Your task to perform on an android device: turn on the 24-hour format for clock Image 0: 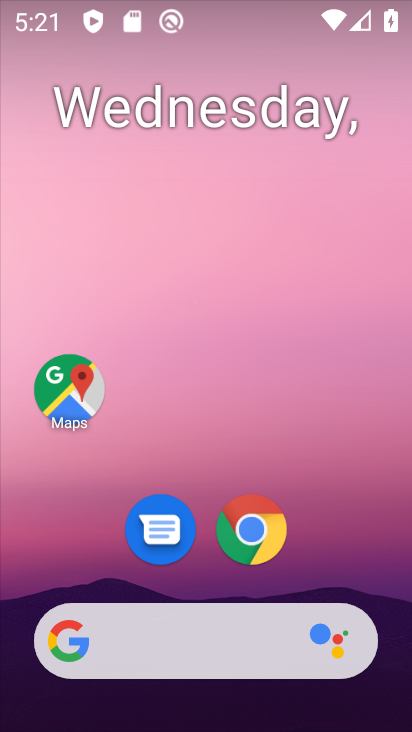
Step 0: drag from (356, 480) to (227, 2)
Your task to perform on an android device: turn on the 24-hour format for clock Image 1: 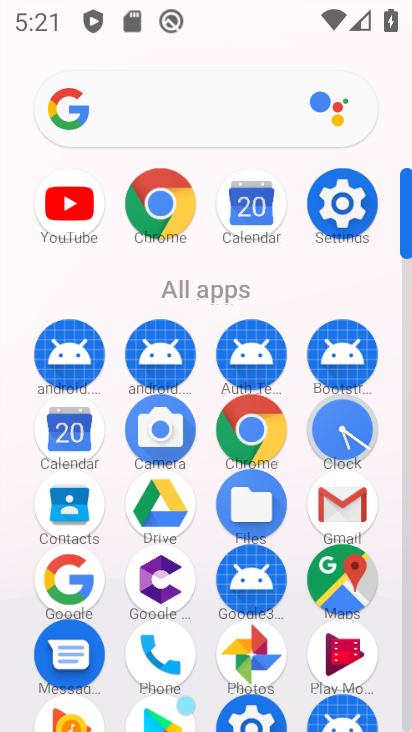
Step 1: drag from (17, 535) to (9, 246)
Your task to perform on an android device: turn on the 24-hour format for clock Image 2: 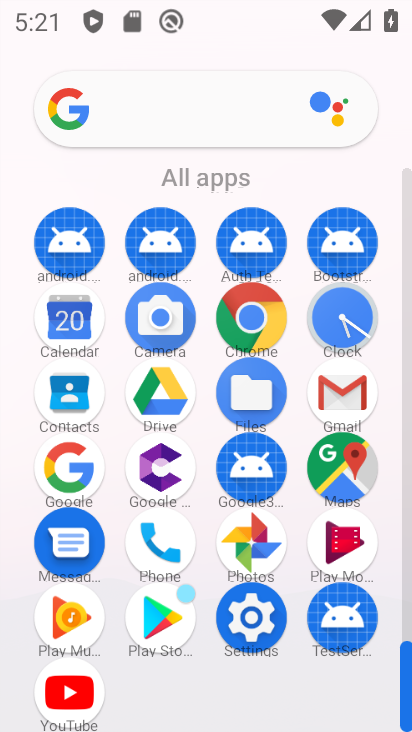
Step 2: click (330, 318)
Your task to perform on an android device: turn on the 24-hour format for clock Image 3: 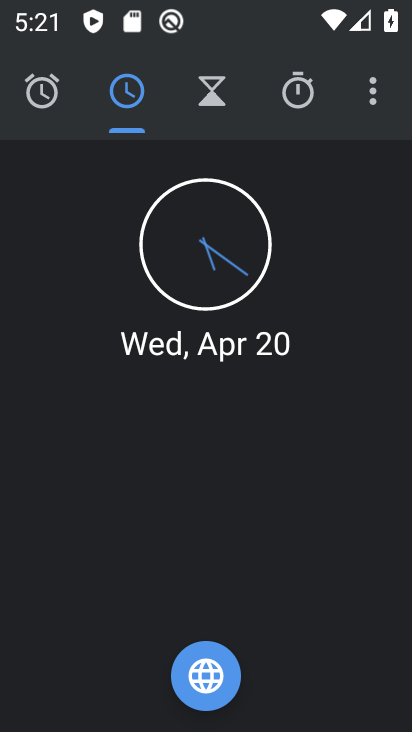
Step 3: click (69, 109)
Your task to perform on an android device: turn on the 24-hour format for clock Image 4: 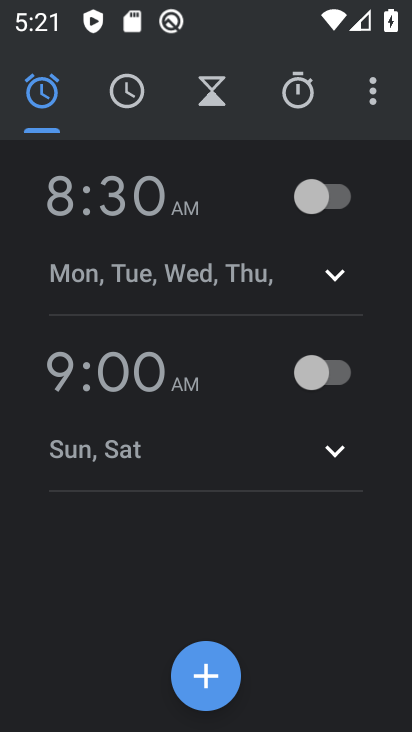
Step 4: click (372, 90)
Your task to perform on an android device: turn on the 24-hour format for clock Image 5: 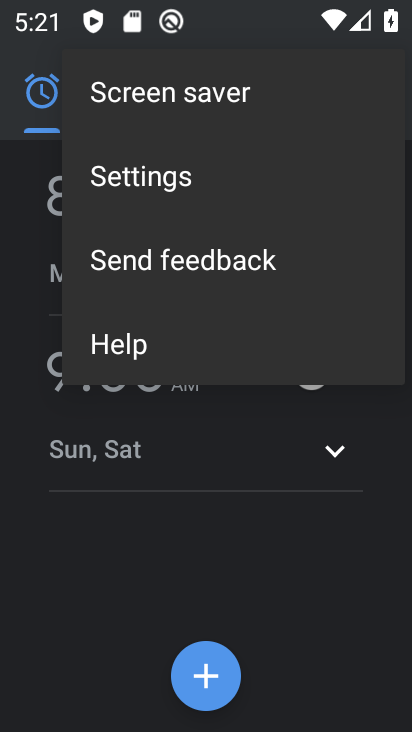
Step 5: click (194, 162)
Your task to perform on an android device: turn on the 24-hour format for clock Image 6: 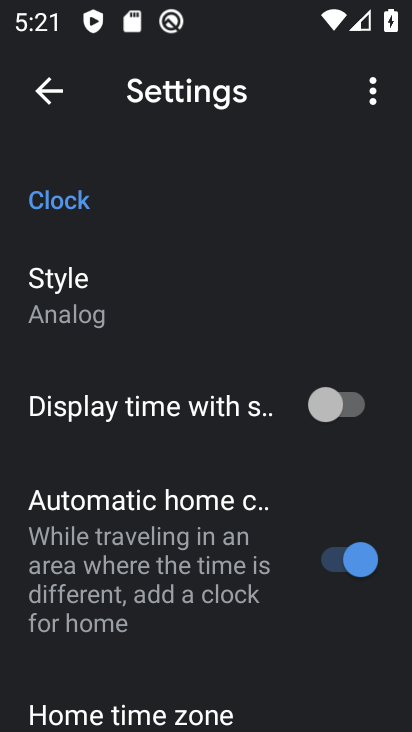
Step 6: drag from (156, 513) to (178, 354)
Your task to perform on an android device: turn on the 24-hour format for clock Image 7: 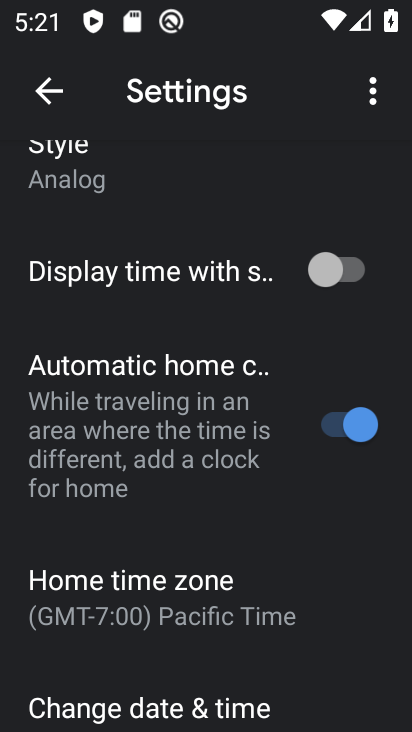
Step 7: click (187, 700)
Your task to perform on an android device: turn on the 24-hour format for clock Image 8: 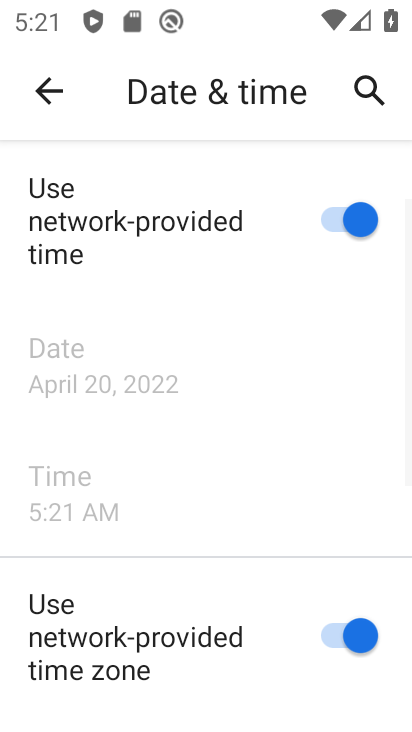
Step 8: drag from (189, 624) to (193, 131)
Your task to perform on an android device: turn on the 24-hour format for clock Image 9: 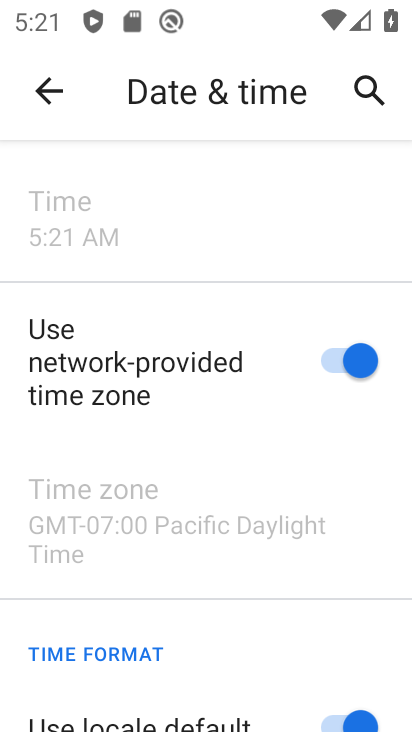
Step 9: drag from (190, 617) to (206, 124)
Your task to perform on an android device: turn on the 24-hour format for clock Image 10: 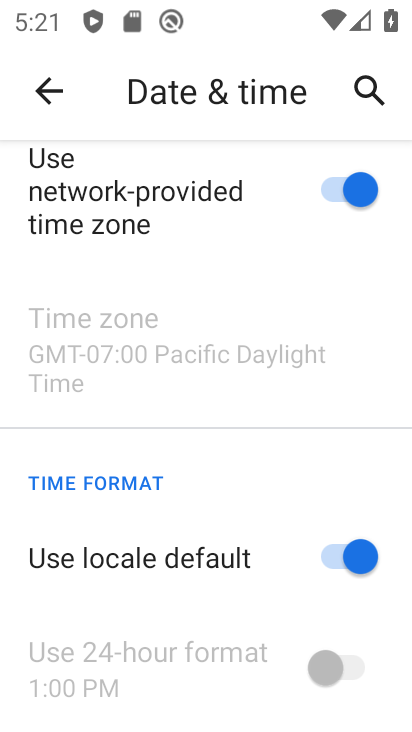
Step 10: click (336, 678)
Your task to perform on an android device: turn on the 24-hour format for clock Image 11: 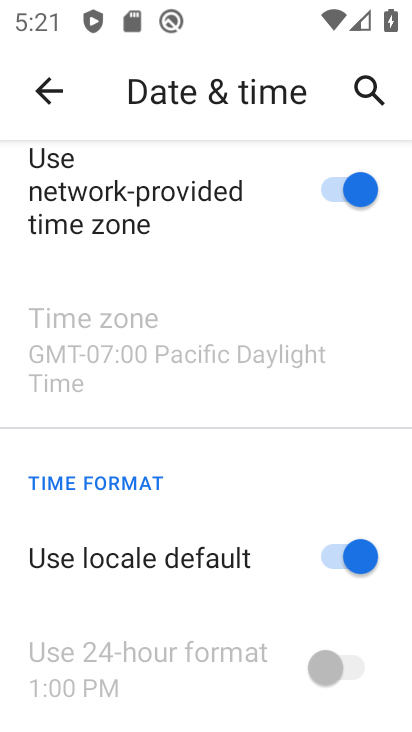
Step 11: click (351, 529)
Your task to perform on an android device: turn on the 24-hour format for clock Image 12: 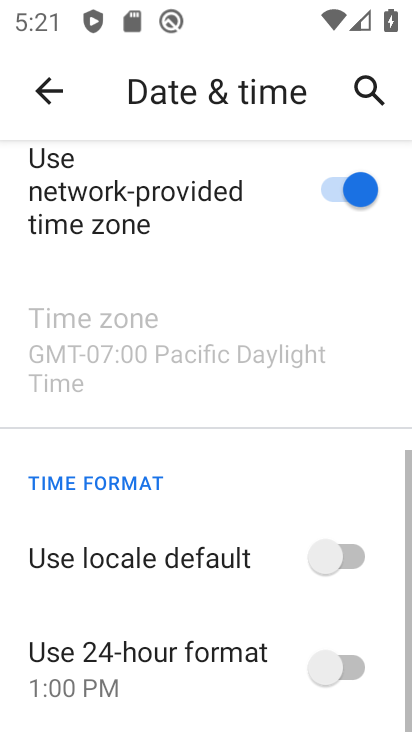
Step 12: click (347, 629)
Your task to perform on an android device: turn on the 24-hour format for clock Image 13: 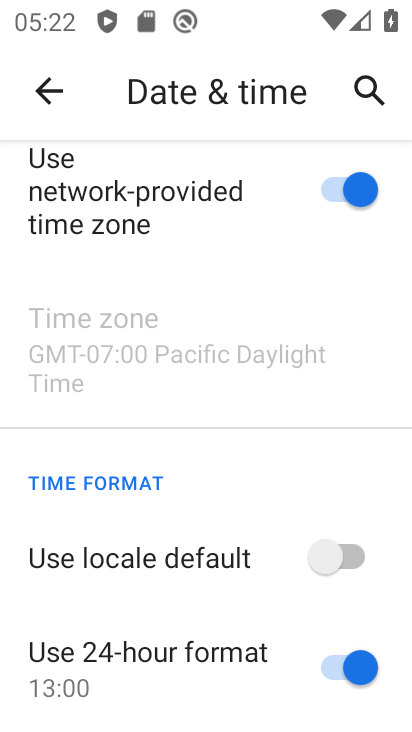
Step 13: task complete